Your task to perform on an android device: Open the web browser Image 0: 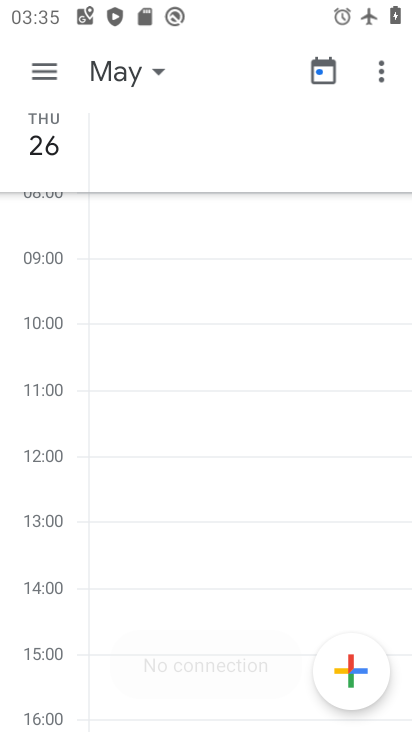
Step 0: press home button
Your task to perform on an android device: Open the web browser Image 1: 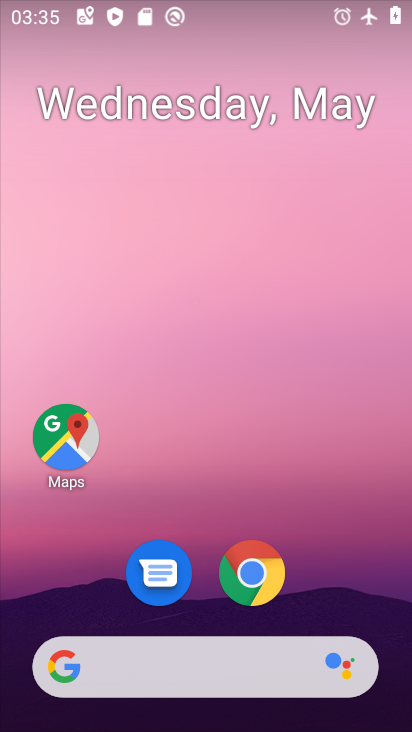
Step 1: click (255, 562)
Your task to perform on an android device: Open the web browser Image 2: 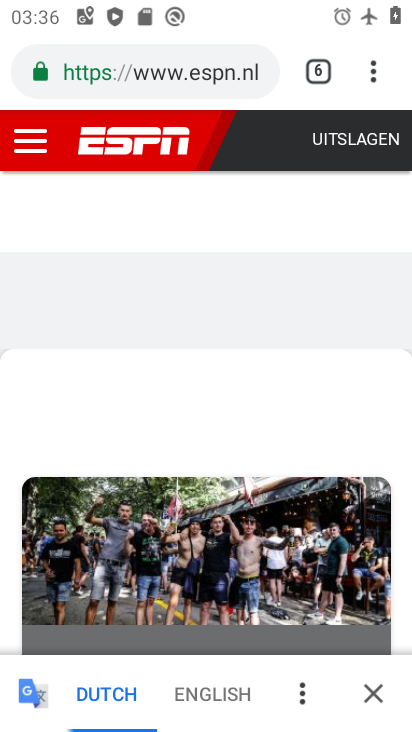
Step 2: task complete